Your task to perform on an android device: Open sound settings Image 0: 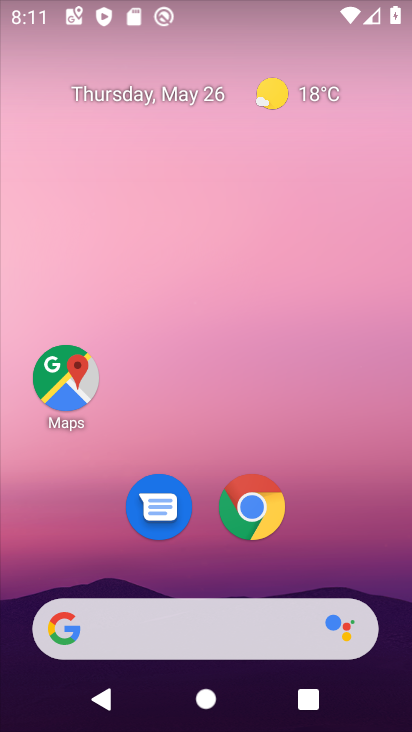
Step 0: press home button
Your task to perform on an android device: Open sound settings Image 1: 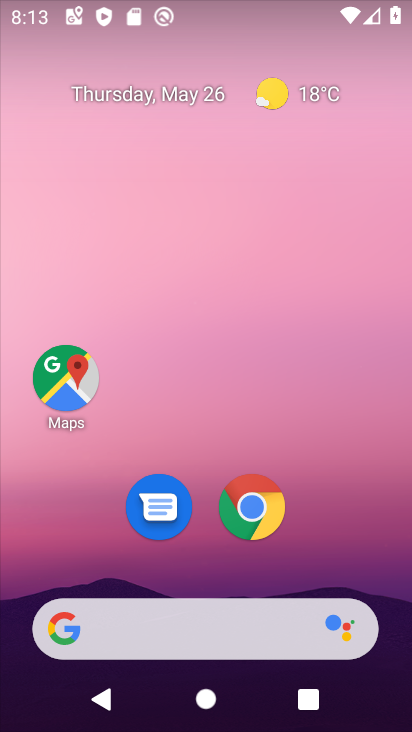
Step 1: drag from (211, 669) to (273, 206)
Your task to perform on an android device: Open sound settings Image 2: 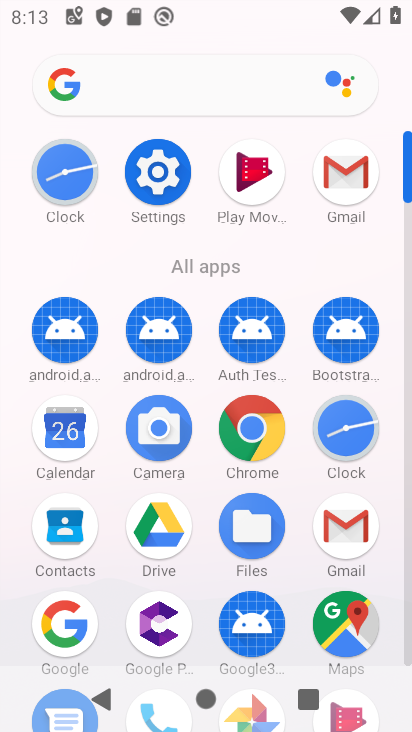
Step 2: click (182, 166)
Your task to perform on an android device: Open sound settings Image 3: 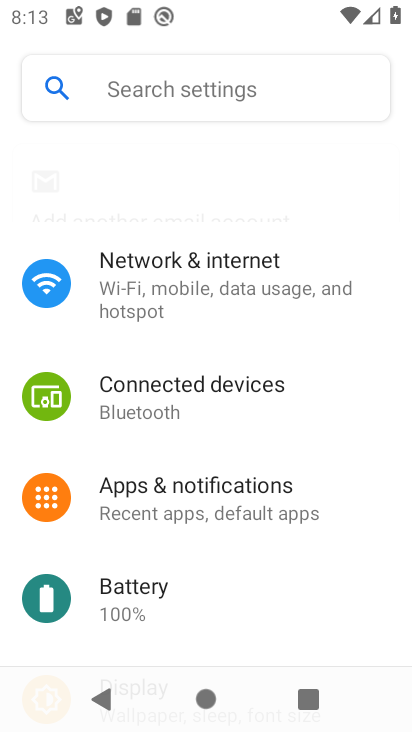
Step 3: click (118, 80)
Your task to perform on an android device: Open sound settings Image 4: 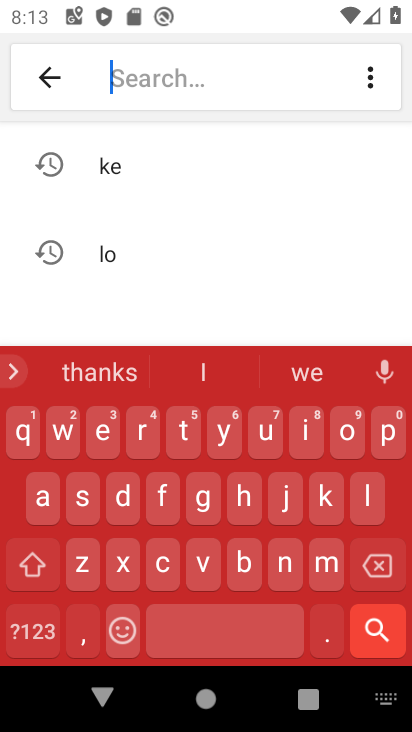
Step 4: click (87, 493)
Your task to perform on an android device: Open sound settings Image 5: 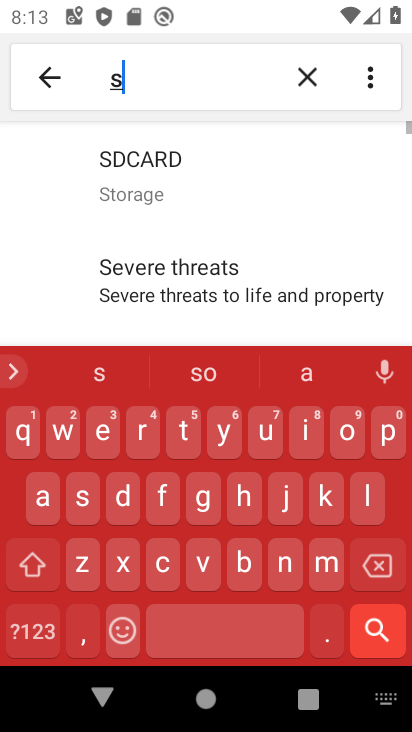
Step 5: click (356, 438)
Your task to perform on an android device: Open sound settings Image 6: 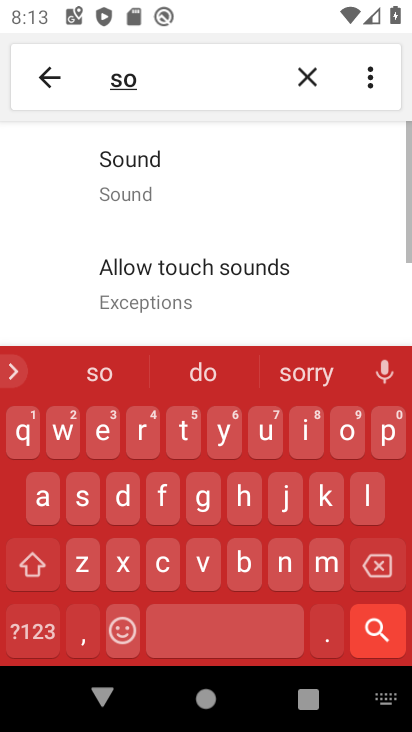
Step 6: click (198, 166)
Your task to perform on an android device: Open sound settings Image 7: 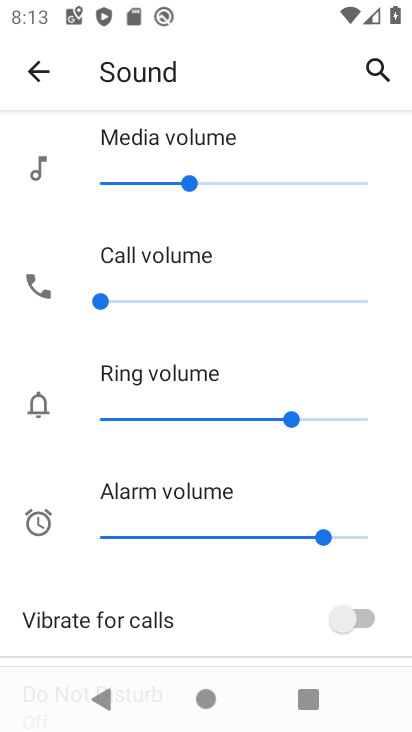
Step 7: task complete